Your task to perform on an android device: How much does a 2 bedroom apartment rent for in Los Angeles? Image 0: 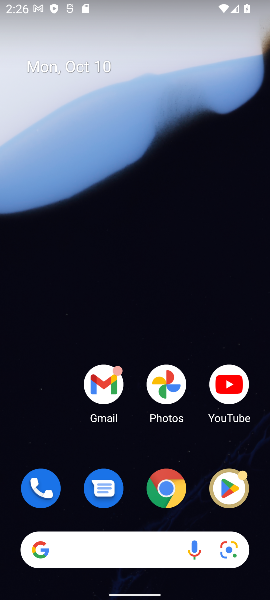
Step 0: click (122, 553)
Your task to perform on an android device: How much does a 2 bedroom apartment rent for in Los Angeles? Image 1: 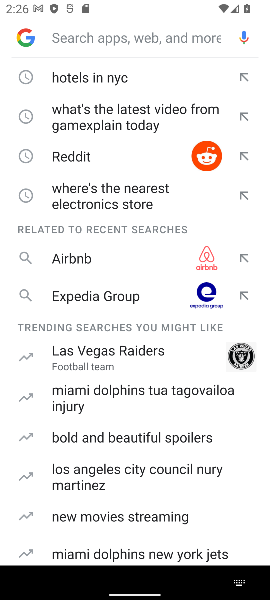
Step 1: type "How much does a 2 bedroom apartment rent for in Los Angeles"
Your task to perform on an android device: How much does a 2 bedroom apartment rent for in Los Angeles? Image 2: 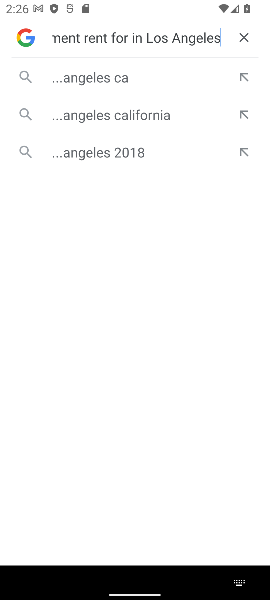
Step 2: click (121, 77)
Your task to perform on an android device: How much does a 2 bedroom apartment rent for in Los Angeles? Image 3: 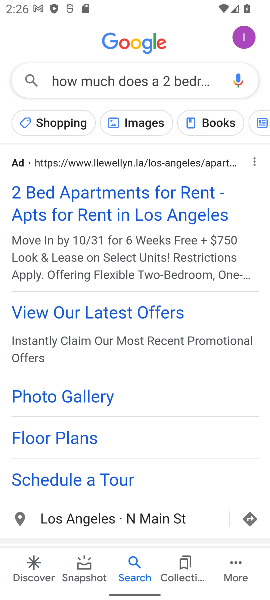
Step 3: drag from (96, 490) to (152, 160)
Your task to perform on an android device: How much does a 2 bedroom apartment rent for in Los Angeles? Image 4: 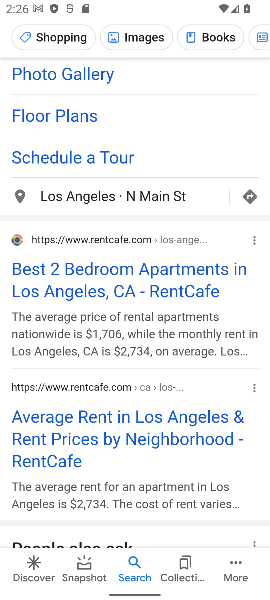
Step 4: drag from (108, 477) to (170, 167)
Your task to perform on an android device: How much does a 2 bedroom apartment rent for in Los Angeles? Image 5: 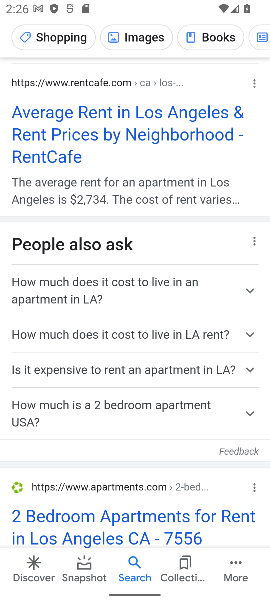
Step 5: click (163, 289)
Your task to perform on an android device: How much does a 2 bedroom apartment rent for in Los Angeles? Image 6: 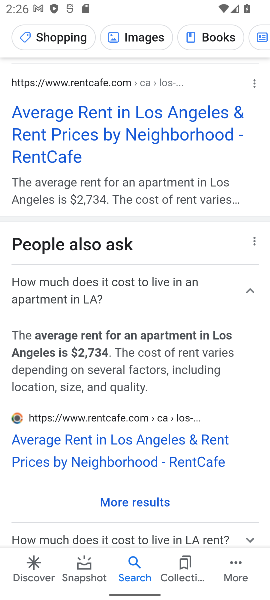
Step 6: task complete